Your task to perform on an android device: delete a single message in the gmail app Image 0: 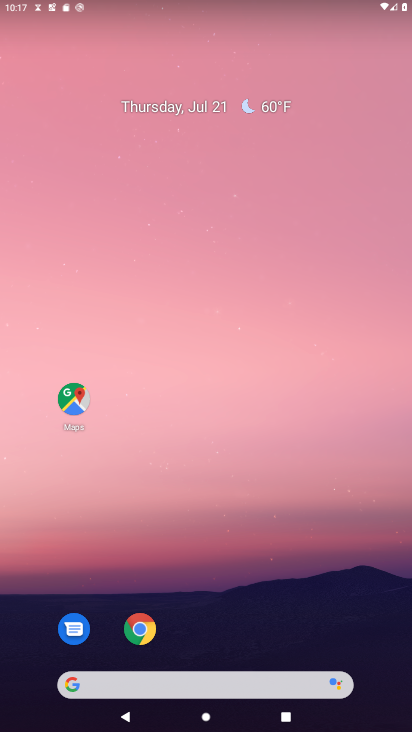
Step 0: drag from (232, 576) to (230, 191)
Your task to perform on an android device: delete a single message in the gmail app Image 1: 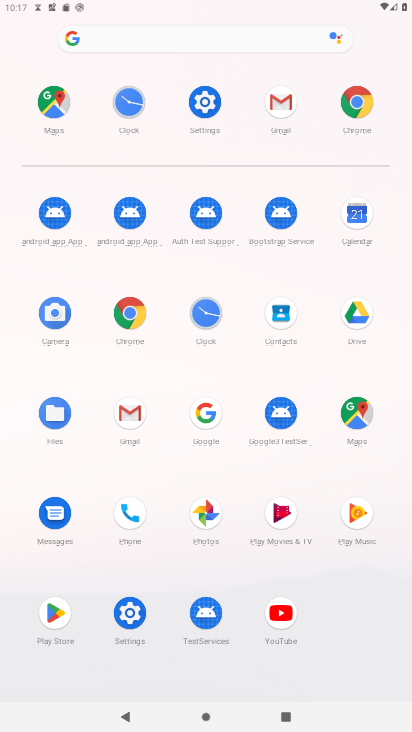
Step 1: click (275, 101)
Your task to perform on an android device: delete a single message in the gmail app Image 2: 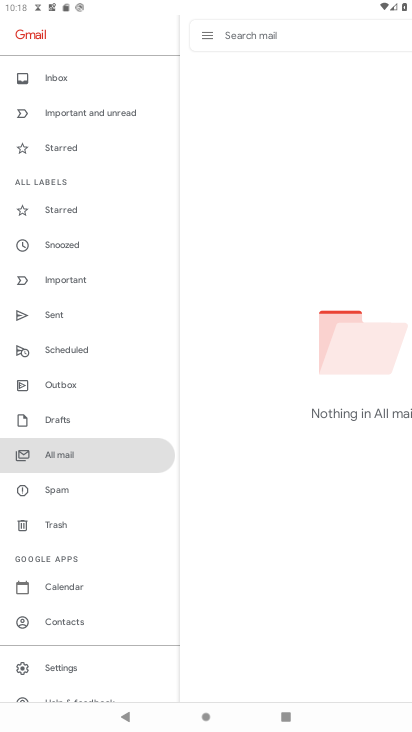
Step 2: click (83, 461)
Your task to perform on an android device: delete a single message in the gmail app Image 3: 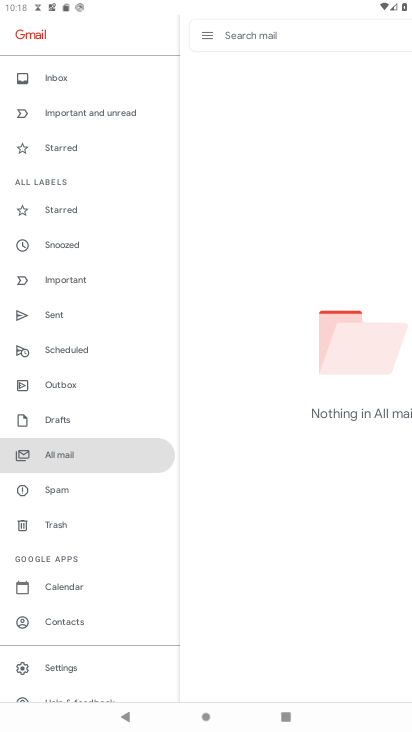
Step 3: task complete